Your task to perform on an android device: Open Android settings Image 0: 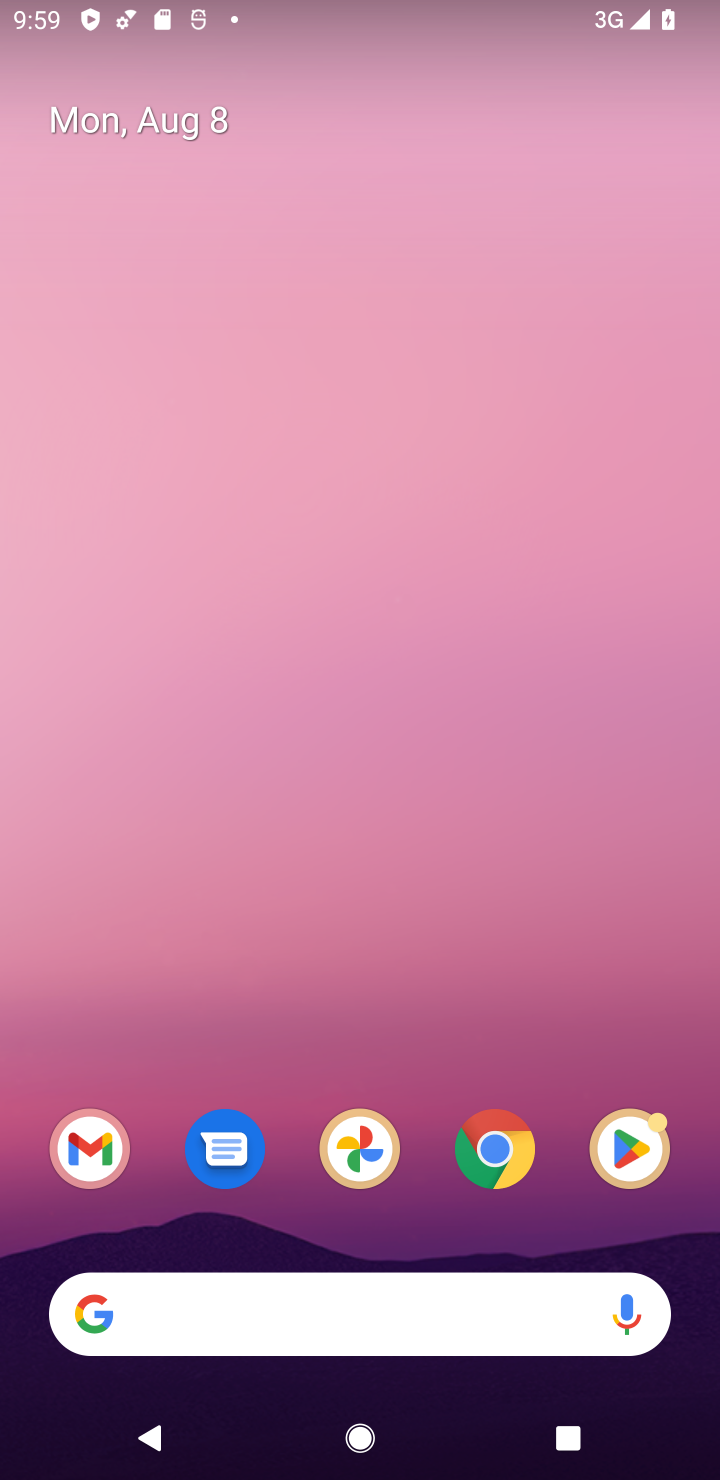
Step 0: drag from (455, 1257) to (405, 4)
Your task to perform on an android device: Open Android settings Image 1: 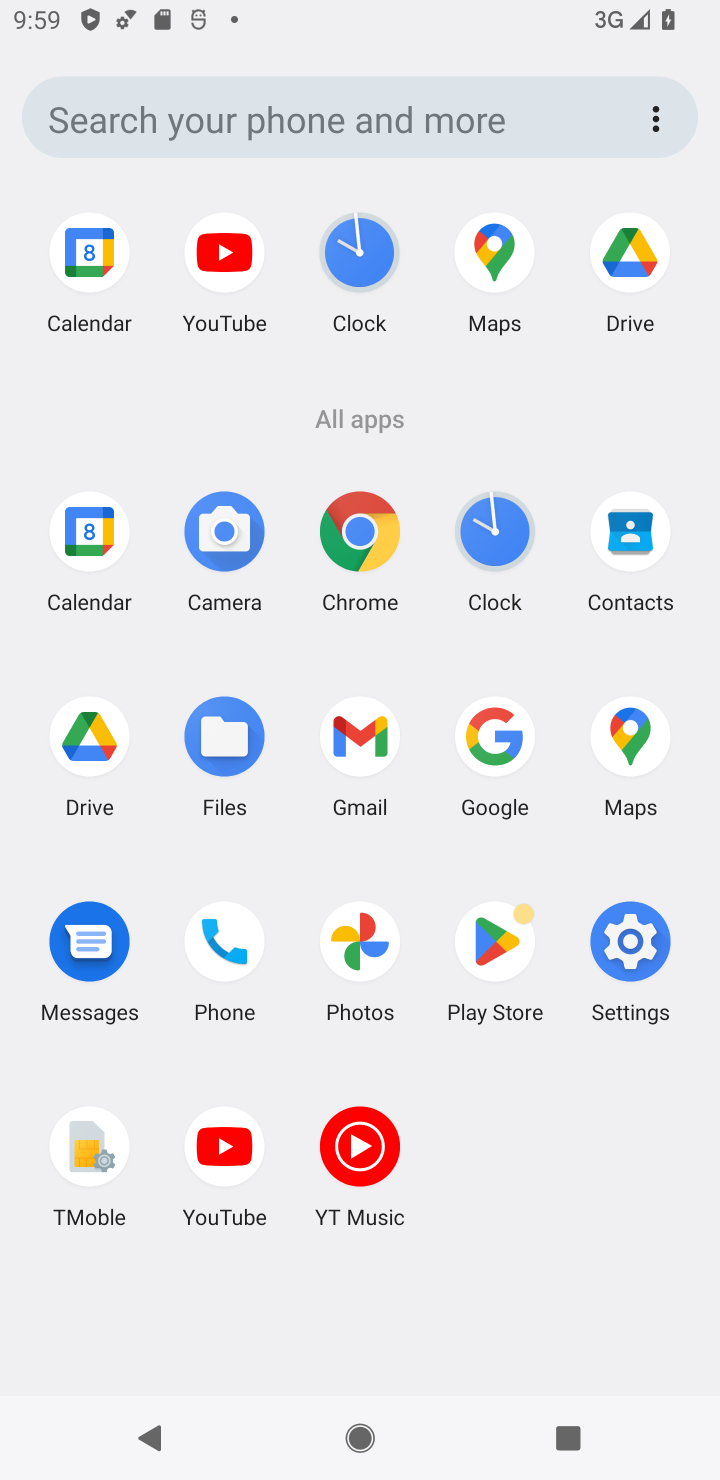
Step 1: click (637, 931)
Your task to perform on an android device: Open Android settings Image 2: 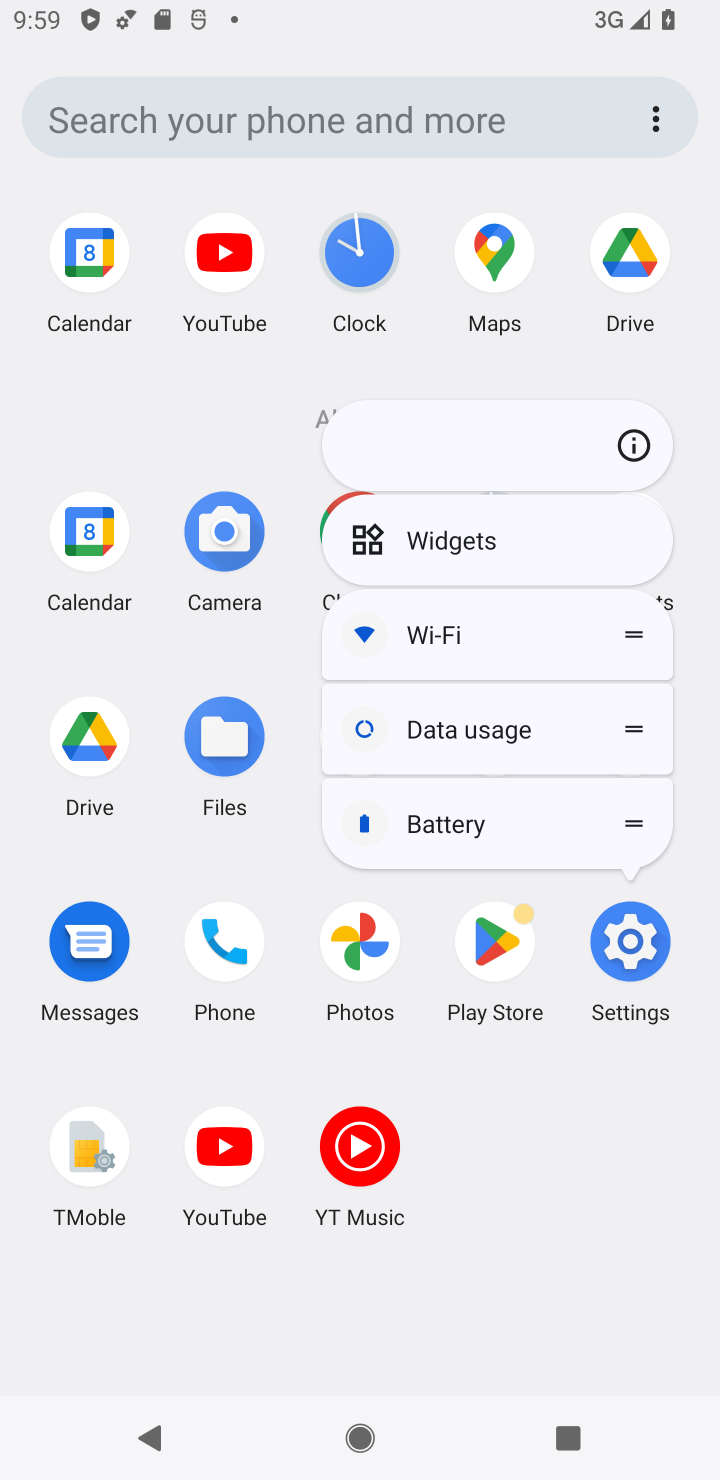
Step 2: click (606, 950)
Your task to perform on an android device: Open Android settings Image 3: 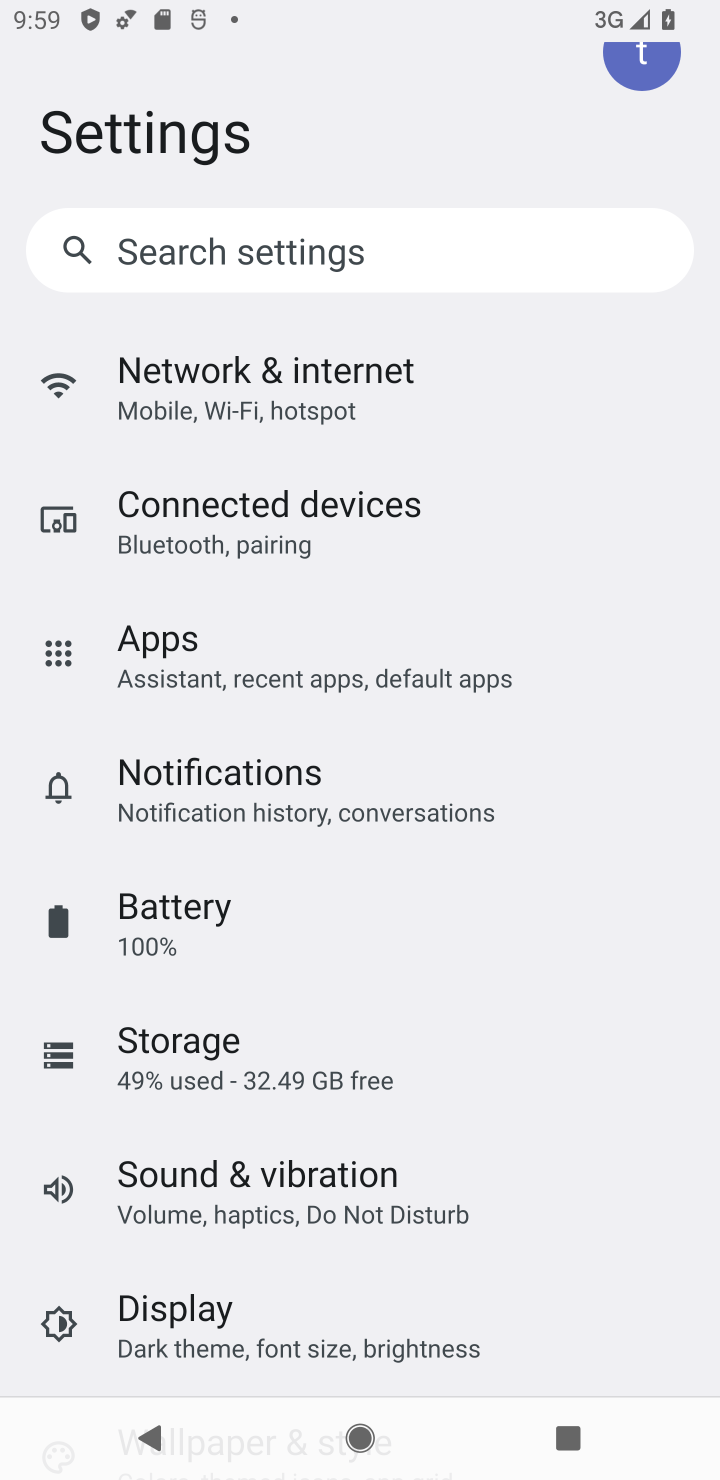
Step 3: task complete